Your task to perform on an android device: Open Google Image 0: 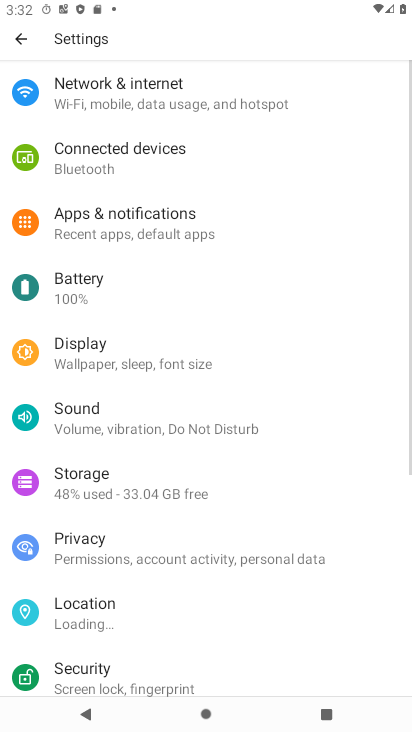
Step 0: press home button
Your task to perform on an android device: Open Google Image 1: 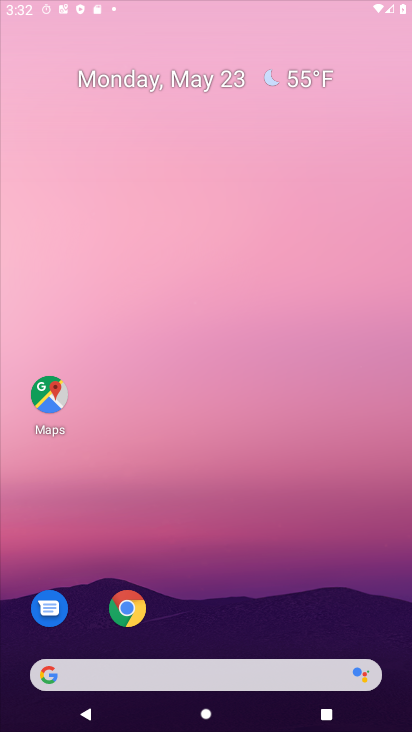
Step 1: drag from (284, 602) to (238, 74)
Your task to perform on an android device: Open Google Image 2: 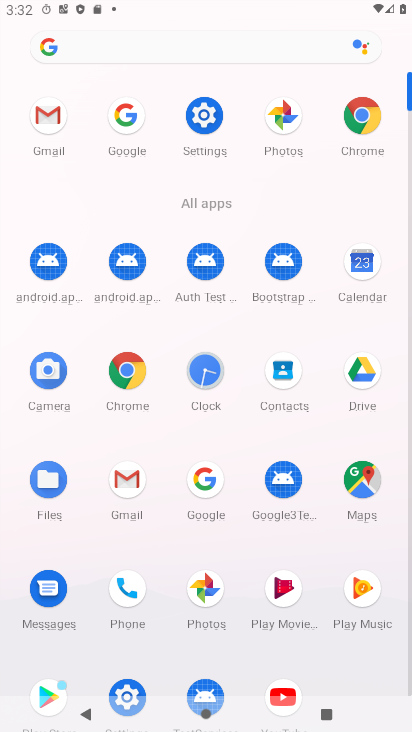
Step 2: click (201, 480)
Your task to perform on an android device: Open Google Image 3: 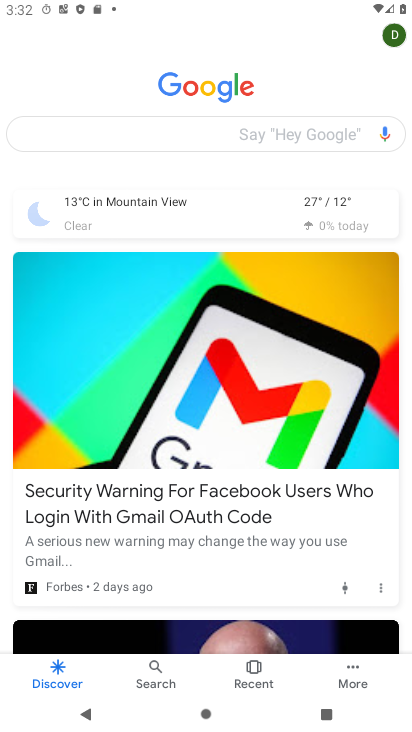
Step 3: task complete